Your task to perform on an android device: refresh tabs in the chrome app Image 0: 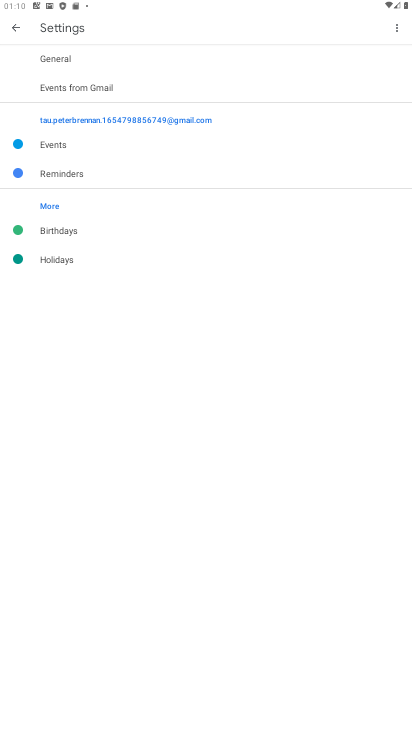
Step 0: press home button
Your task to perform on an android device: refresh tabs in the chrome app Image 1: 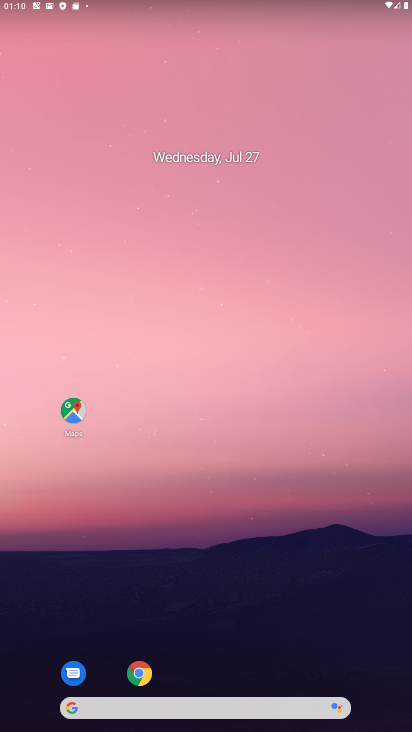
Step 1: drag from (227, 619) to (240, 182)
Your task to perform on an android device: refresh tabs in the chrome app Image 2: 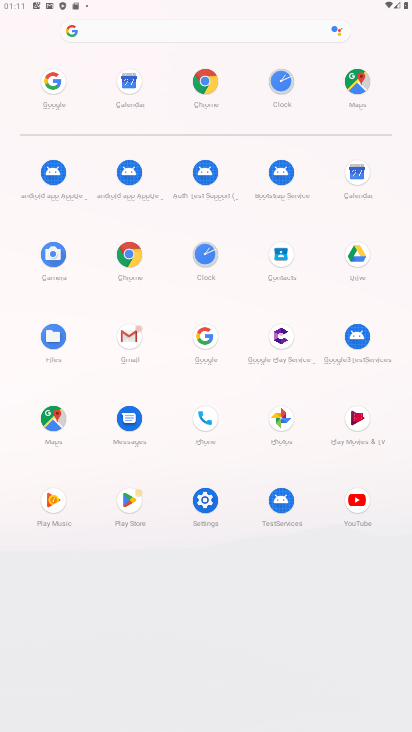
Step 2: click (202, 73)
Your task to perform on an android device: refresh tabs in the chrome app Image 3: 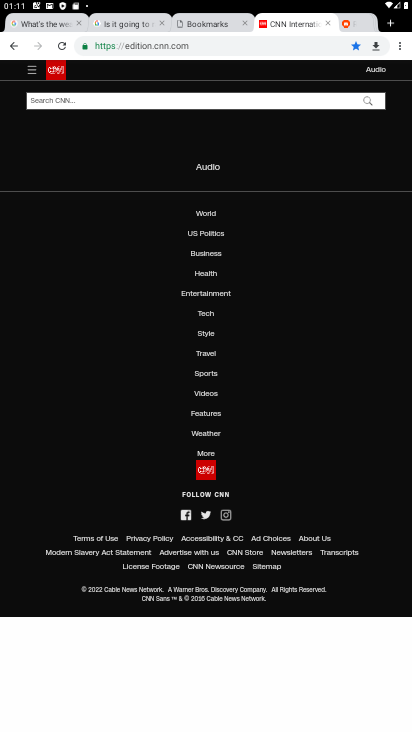
Step 3: click (57, 37)
Your task to perform on an android device: refresh tabs in the chrome app Image 4: 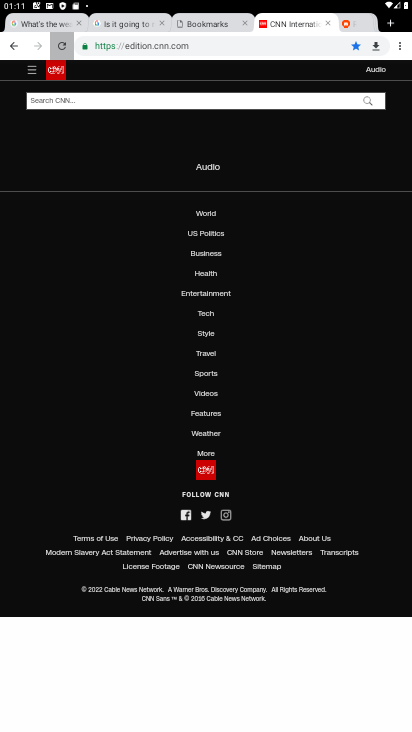
Step 4: click (57, 37)
Your task to perform on an android device: refresh tabs in the chrome app Image 5: 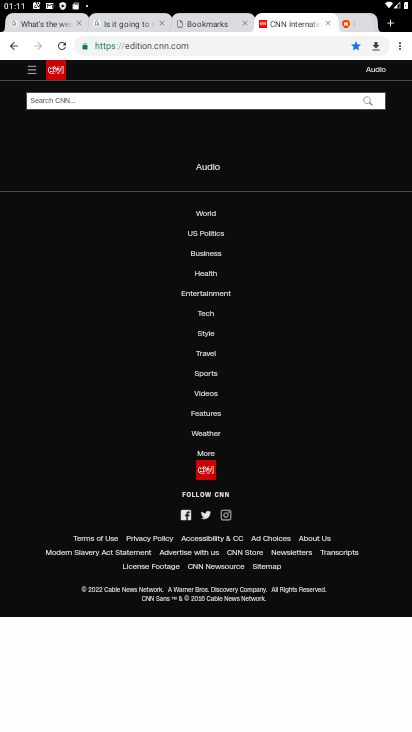
Step 5: click (59, 48)
Your task to perform on an android device: refresh tabs in the chrome app Image 6: 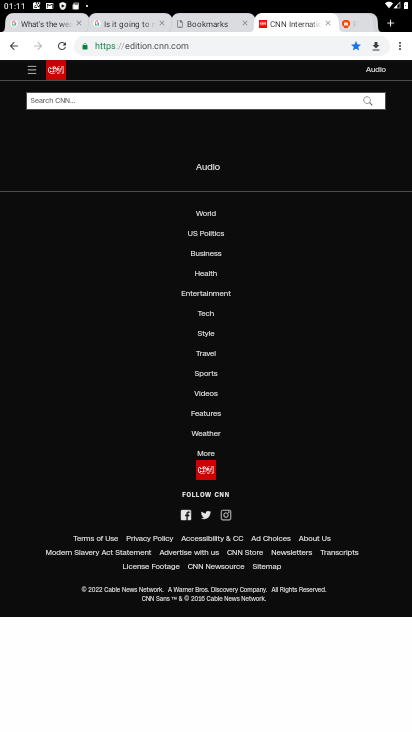
Step 6: task complete